Your task to perform on an android device: open sync settings in chrome Image 0: 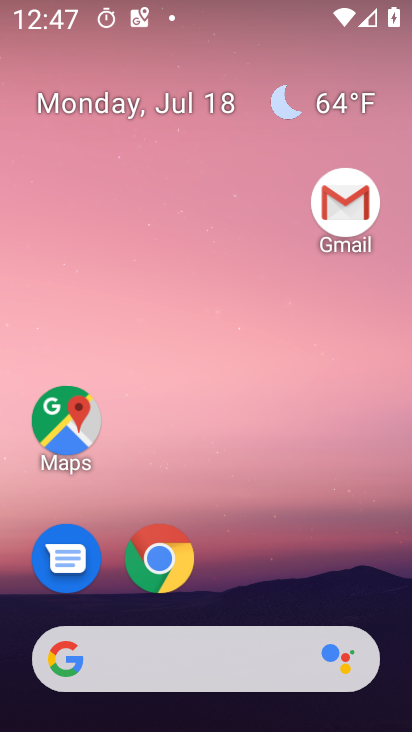
Step 0: drag from (337, 573) to (410, 111)
Your task to perform on an android device: open sync settings in chrome Image 1: 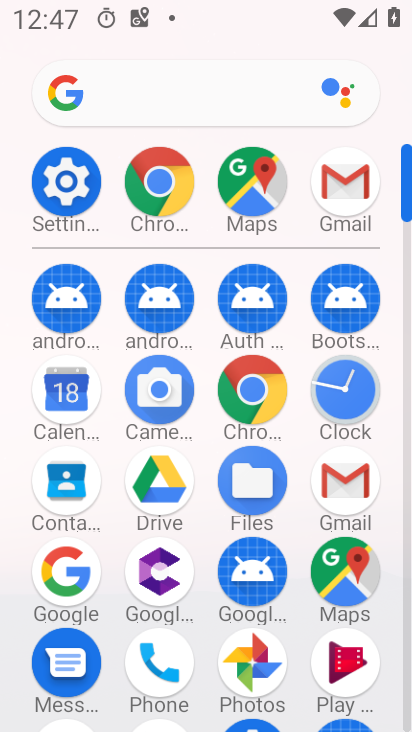
Step 1: click (257, 399)
Your task to perform on an android device: open sync settings in chrome Image 2: 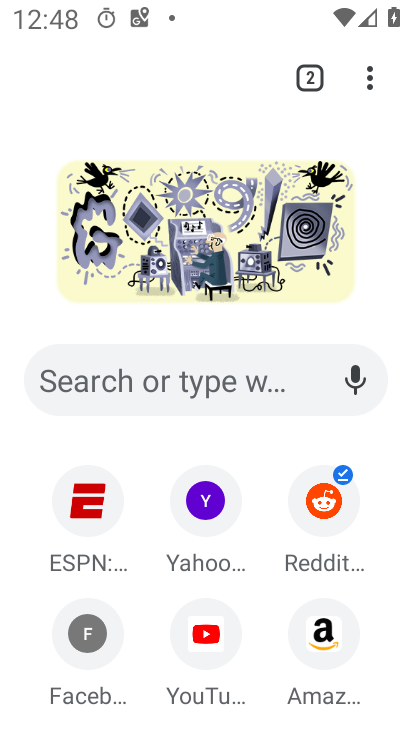
Step 2: click (369, 83)
Your task to perform on an android device: open sync settings in chrome Image 3: 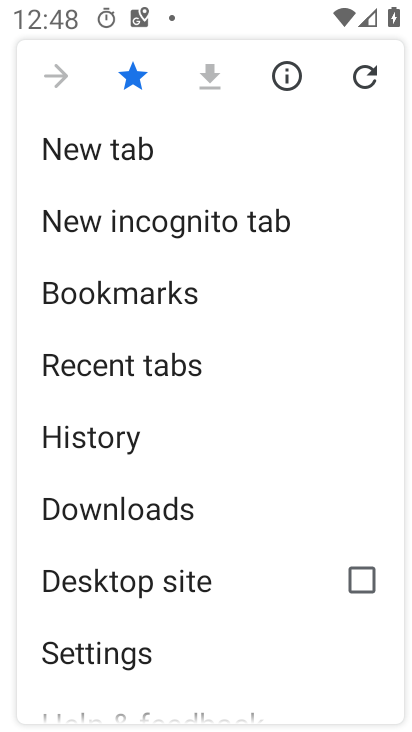
Step 3: click (138, 658)
Your task to perform on an android device: open sync settings in chrome Image 4: 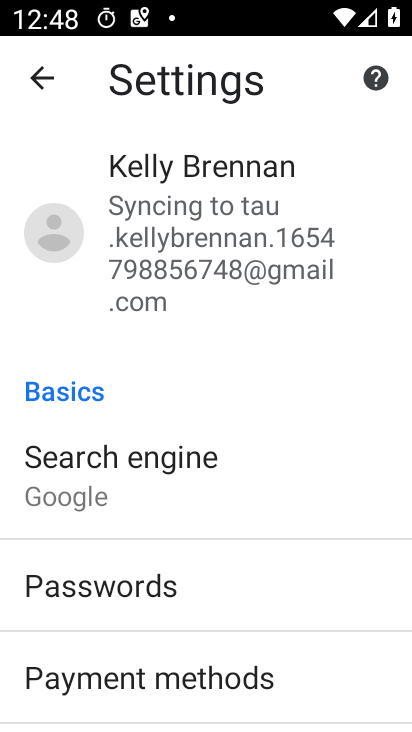
Step 4: drag from (356, 609) to (371, 522)
Your task to perform on an android device: open sync settings in chrome Image 5: 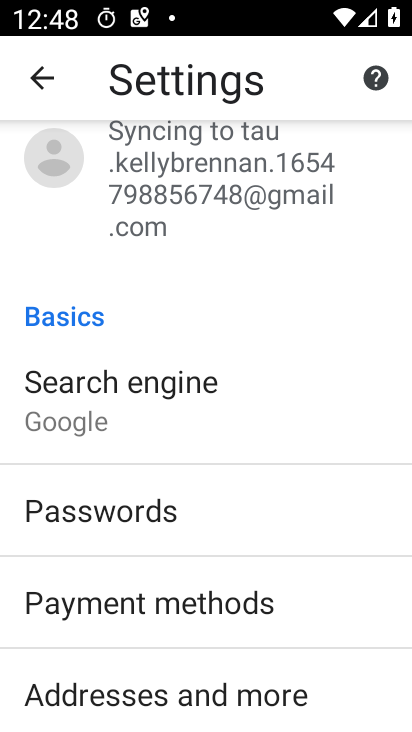
Step 5: drag from (379, 640) to (393, 548)
Your task to perform on an android device: open sync settings in chrome Image 6: 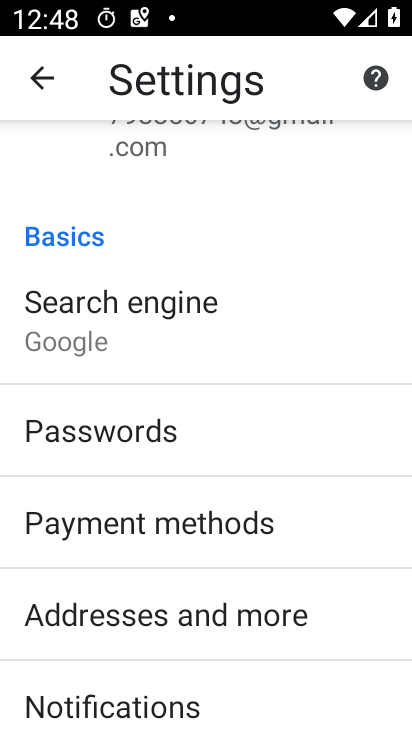
Step 6: drag from (346, 640) to (352, 552)
Your task to perform on an android device: open sync settings in chrome Image 7: 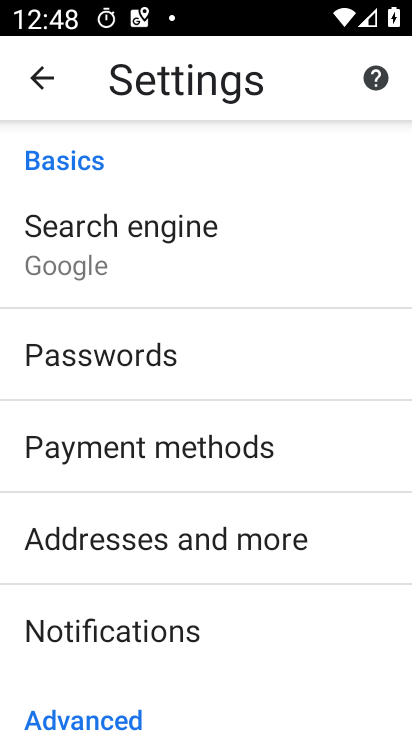
Step 7: drag from (340, 644) to (346, 526)
Your task to perform on an android device: open sync settings in chrome Image 8: 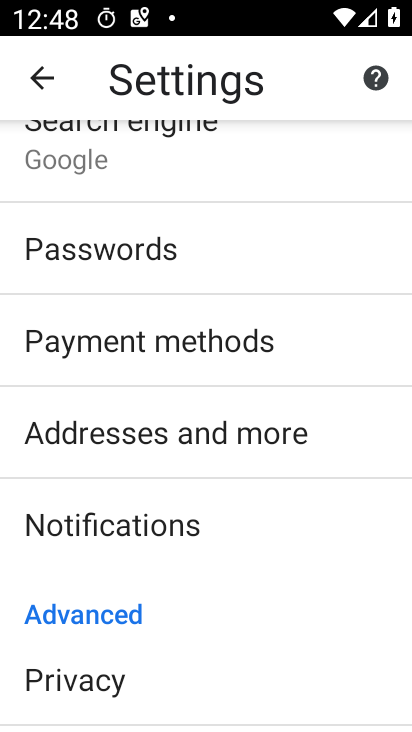
Step 8: drag from (328, 615) to (329, 525)
Your task to perform on an android device: open sync settings in chrome Image 9: 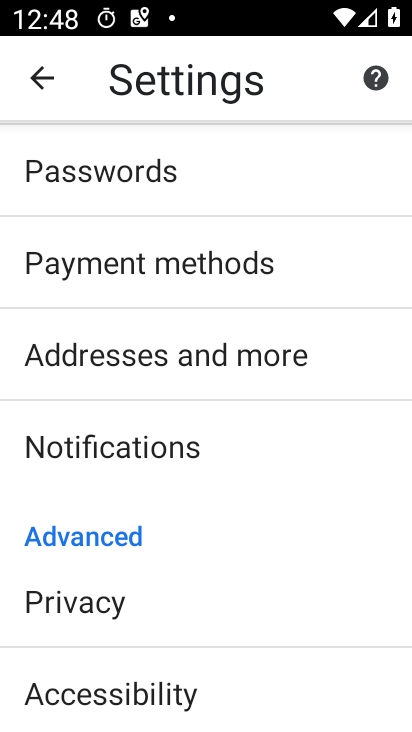
Step 9: drag from (338, 609) to (349, 529)
Your task to perform on an android device: open sync settings in chrome Image 10: 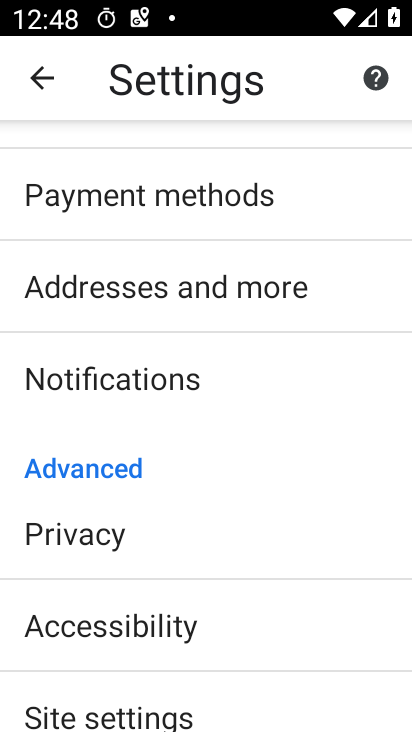
Step 10: drag from (344, 627) to (348, 507)
Your task to perform on an android device: open sync settings in chrome Image 11: 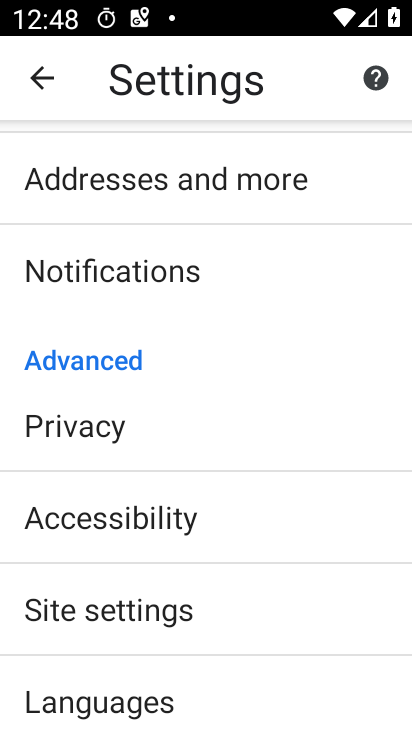
Step 11: click (320, 608)
Your task to perform on an android device: open sync settings in chrome Image 12: 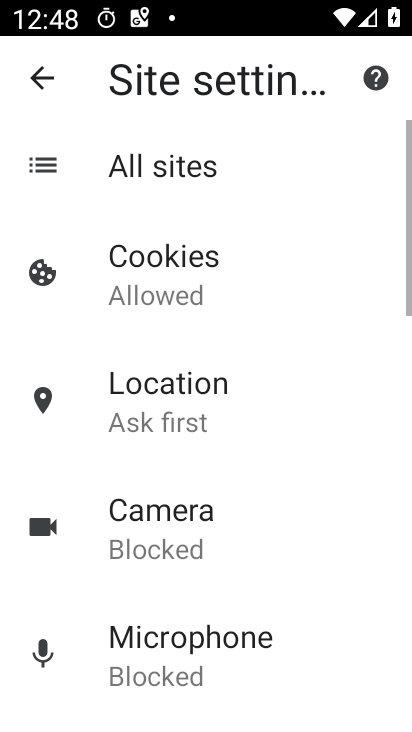
Step 12: drag from (322, 607) to (343, 488)
Your task to perform on an android device: open sync settings in chrome Image 13: 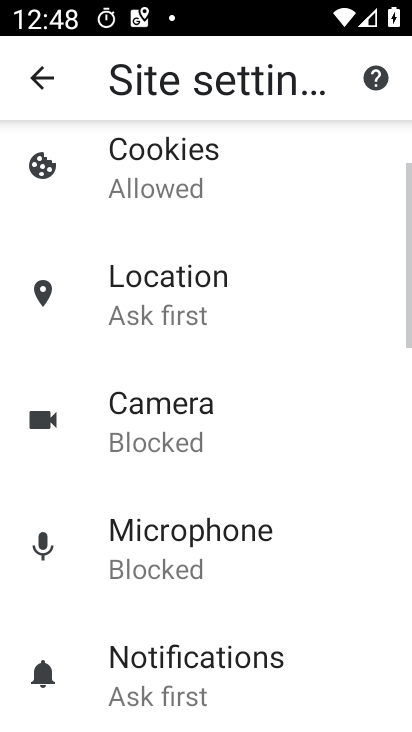
Step 13: drag from (331, 614) to (347, 478)
Your task to perform on an android device: open sync settings in chrome Image 14: 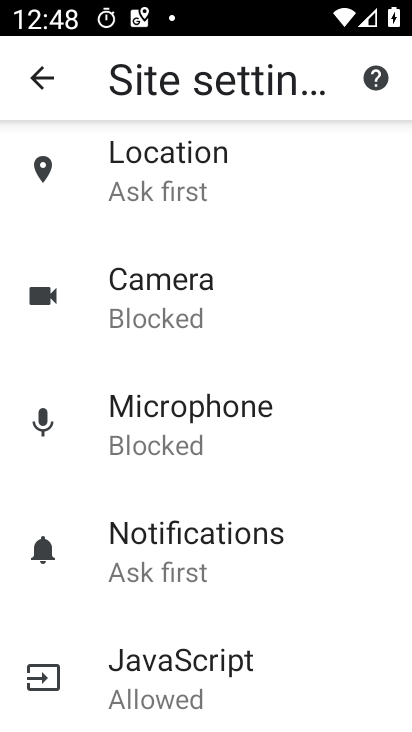
Step 14: drag from (328, 603) to (327, 475)
Your task to perform on an android device: open sync settings in chrome Image 15: 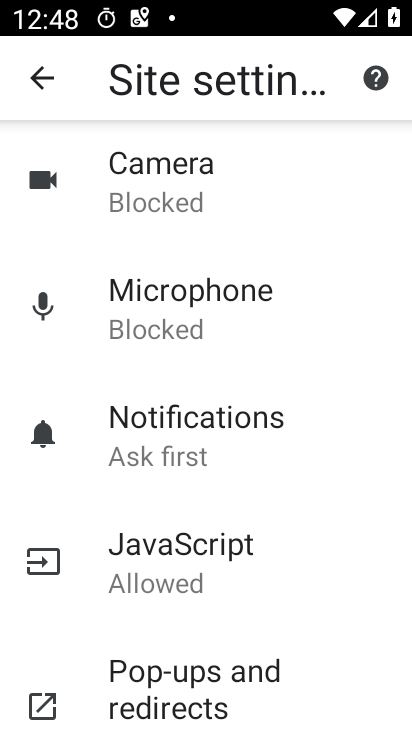
Step 15: drag from (324, 594) to (334, 409)
Your task to perform on an android device: open sync settings in chrome Image 16: 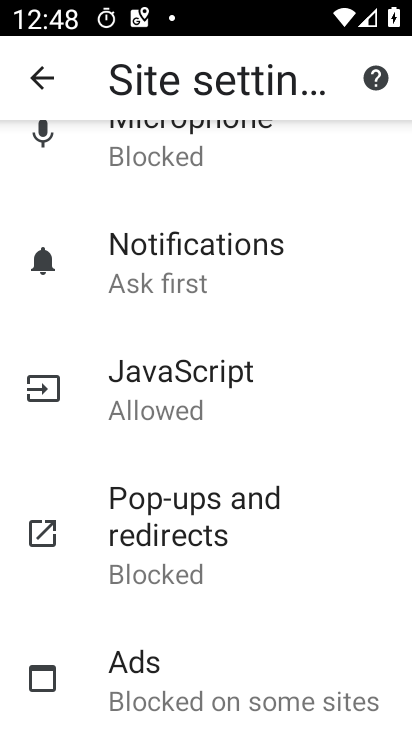
Step 16: drag from (326, 584) to (330, 455)
Your task to perform on an android device: open sync settings in chrome Image 17: 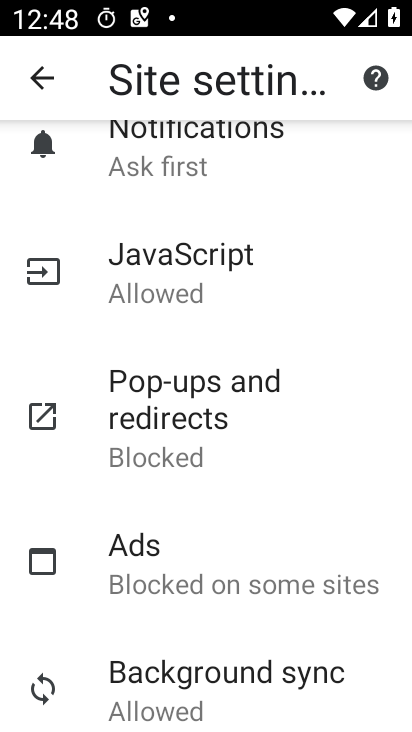
Step 17: drag from (296, 587) to (297, 484)
Your task to perform on an android device: open sync settings in chrome Image 18: 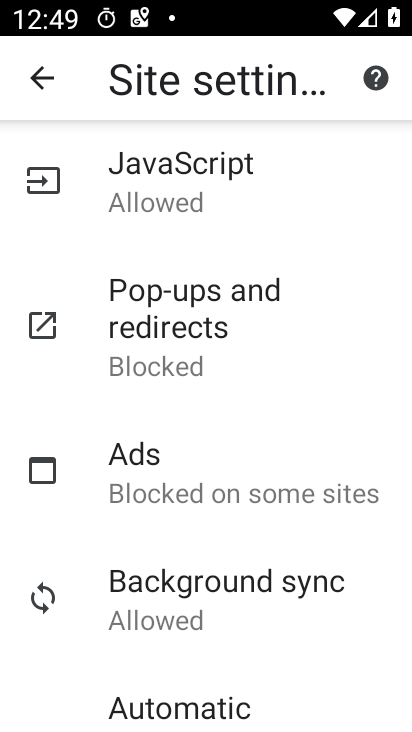
Step 18: click (291, 599)
Your task to perform on an android device: open sync settings in chrome Image 19: 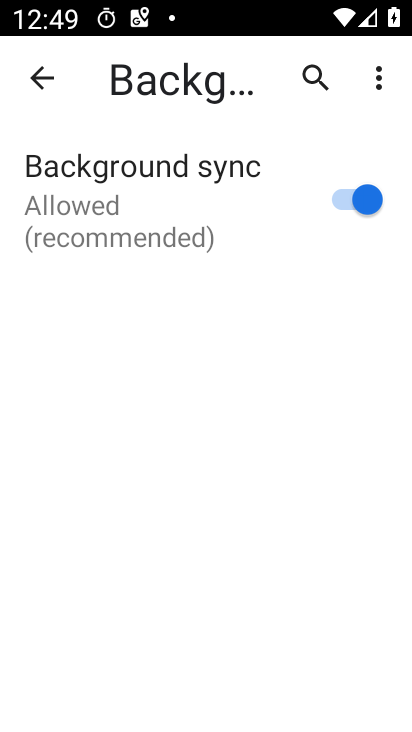
Step 19: task complete